Your task to perform on an android device: find photos in the google photos app Image 0: 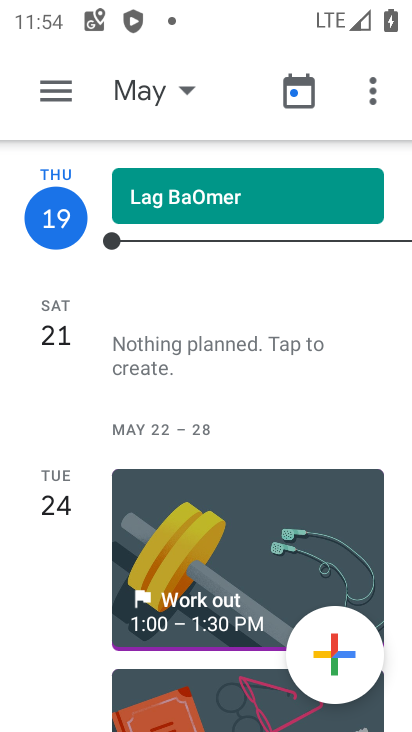
Step 0: press home button
Your task to perform on an android device: find photos in the google photos app Image 1: 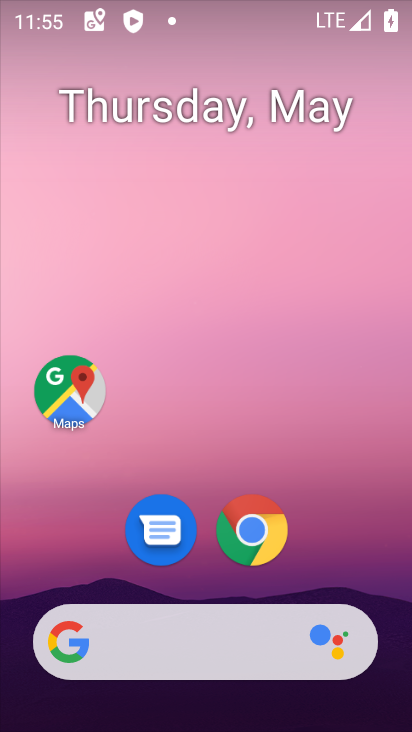
Step 1: drag from (175, 707) to (119, 106)
Your task to perform on an android device: find photos in the google photos app Image 2: 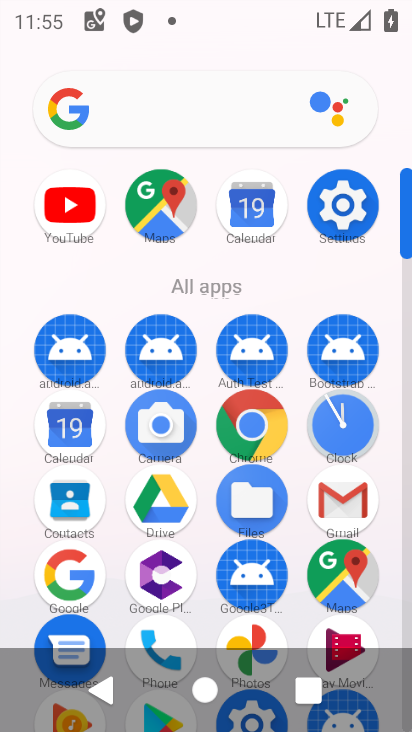
Step 2: click (253, 623)
Your task to perform on an android device: find photos in the google photos app Image 3: 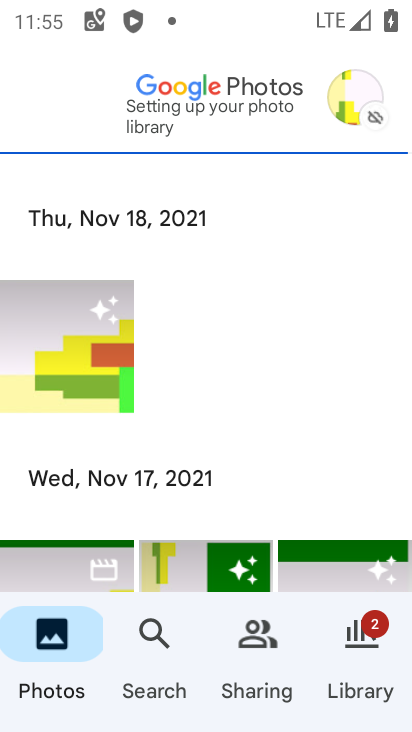
Step 3: task complete